Your task to perform on an android device: toggle wifi Image 0: 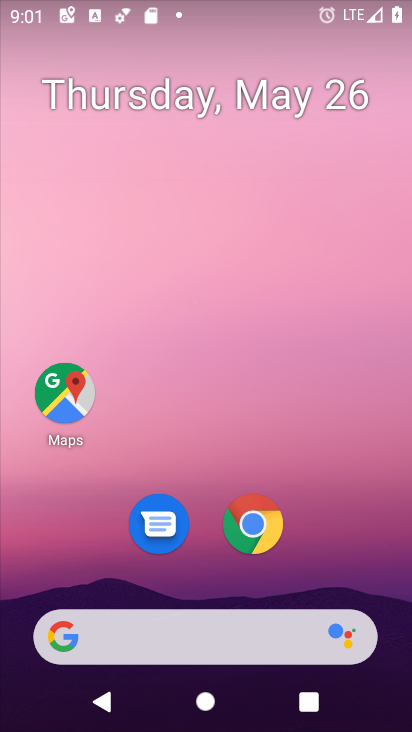
Step 0: drag from (273, 401) to (224, 66)
Your task to perform on an android device: toggle wifi Image 1: 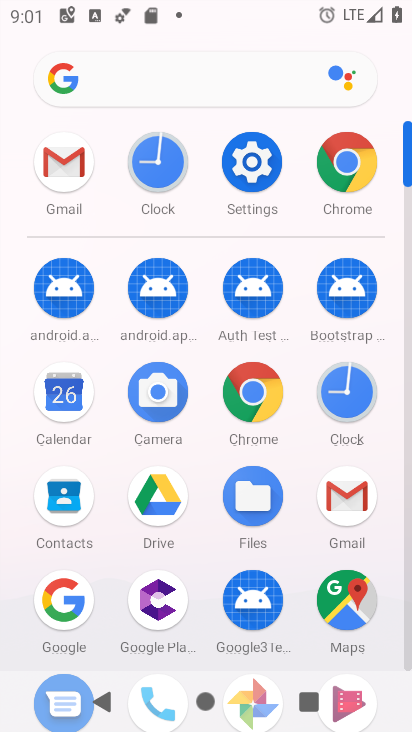
Step 1: click (246, 176)
Your task to perform on an android device: toggle wifi Image 2: 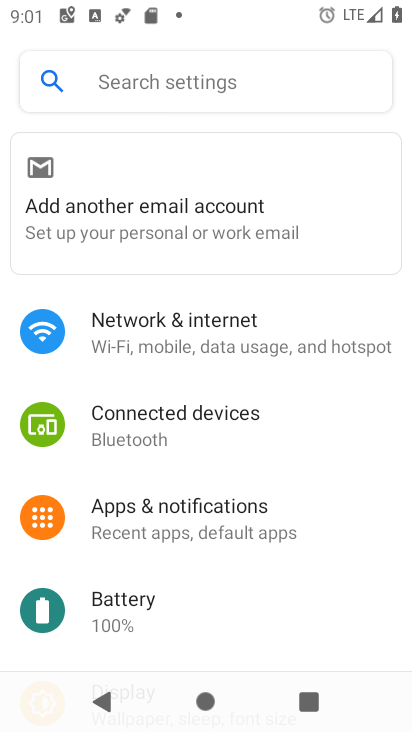
Step 2: click (206, 323)
Your task to perform on an android device: toggle wifi Image 3: 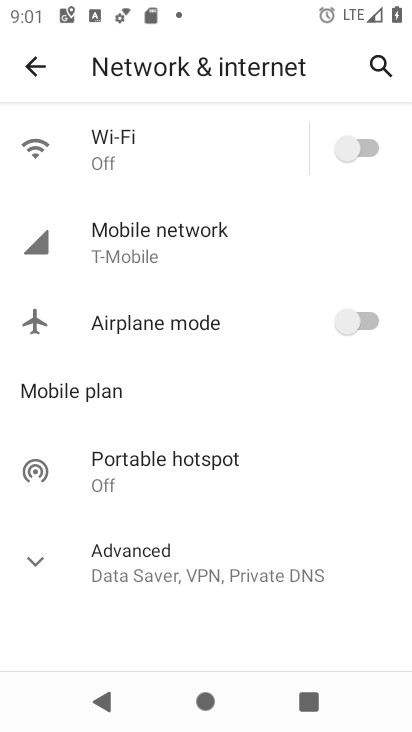
Step 3: click (361, 143)
Your task to perform on an android device: toggle wifi Image 4: 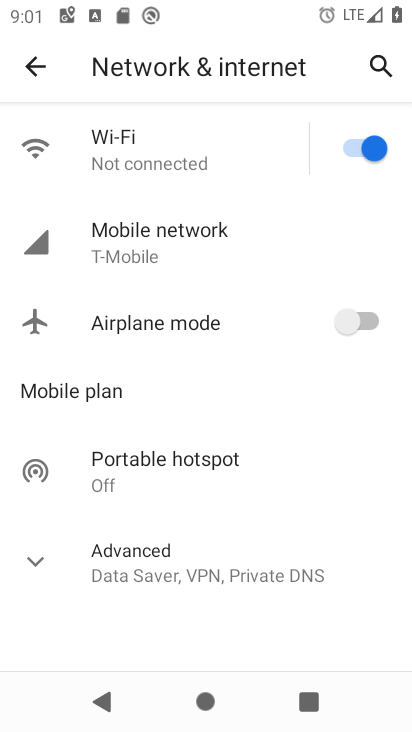
Step 4: task complete